Your task to perform on an android device: Is it going to rain tomorrow? Image 0: 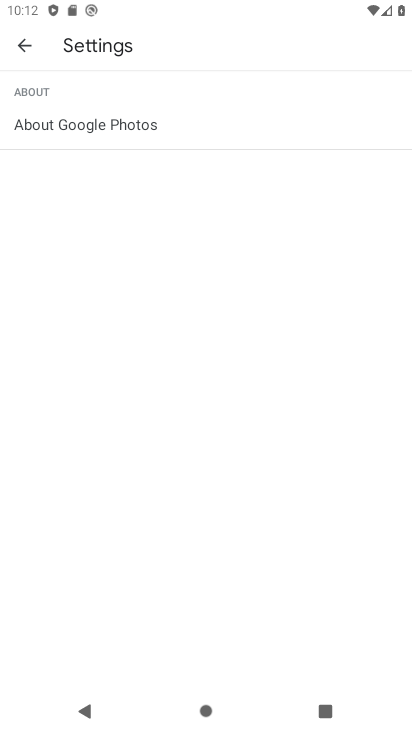
Step 0: press home button
Your task to perform on an android device: Is it going to rain tomorrow? Image 1: 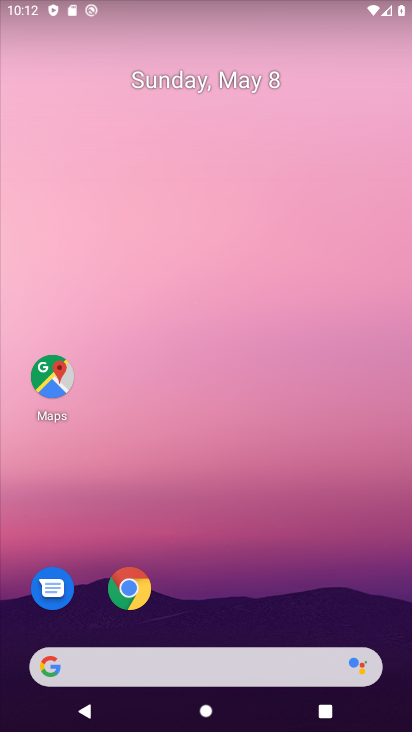
Step 1: drag from (0, 247) to (387, 272)
Your task to perform on an android device: Is it going to rain tomorrow? Image 2: 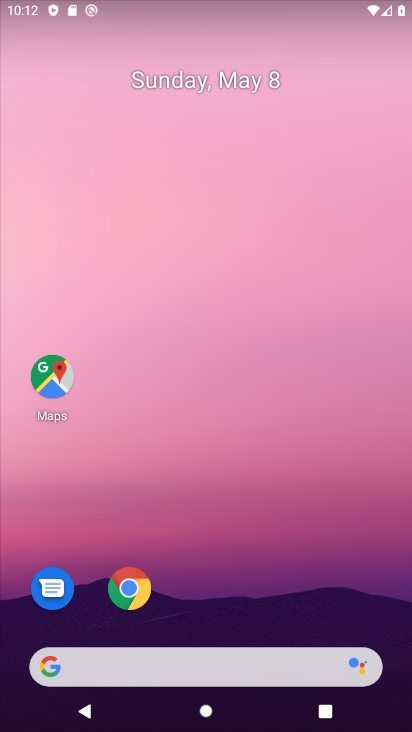
Step 2: drag from (0, 268) to (398, 294)
Your task to perform on an android device: Is it going to rain tomorrow? Image 3: 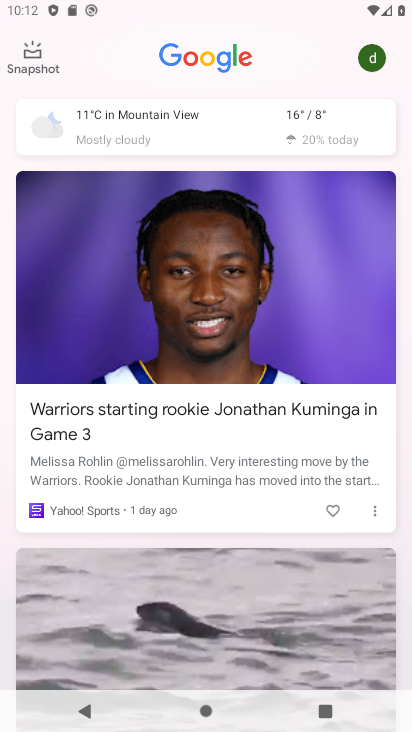
Step 3: click (346, 145)
Your task to perform on an android device: Is it going to rain tomorrow? Image 4: 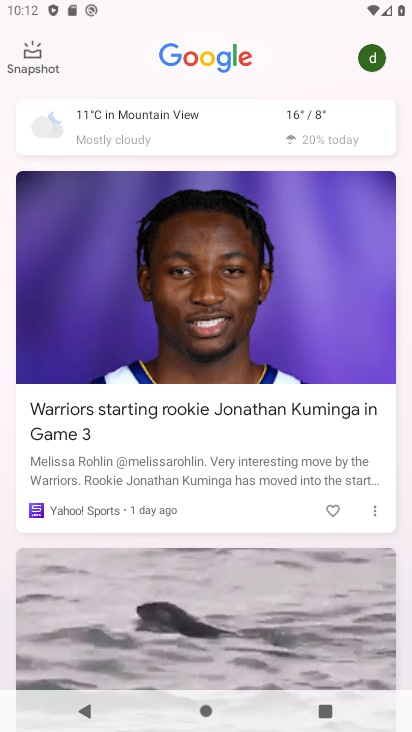
Step 4: click (346, 145)
Your task to perform on an android device: Is it going to rain tomorrow? Image 5: 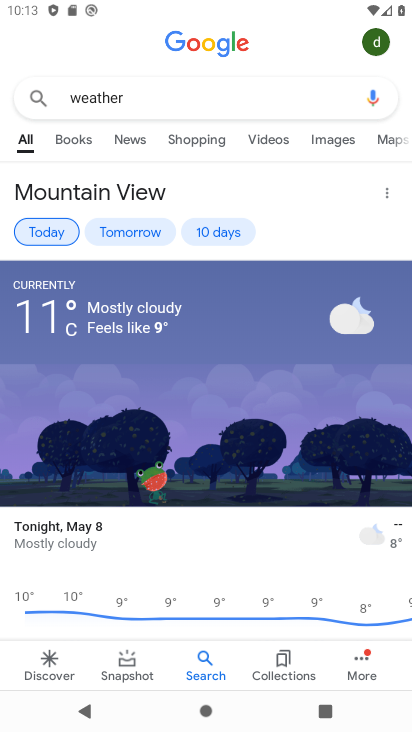
Step 5: click (144, 245)
Your task to perform on an android device: Is it going to rain tomorrow? Image 6: 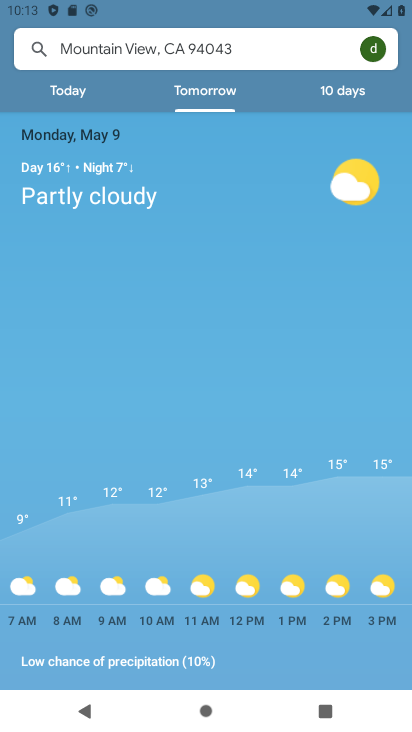
Step 6: task complete